Your task to perform on an android device: see creations saved in the google photos Image 0: 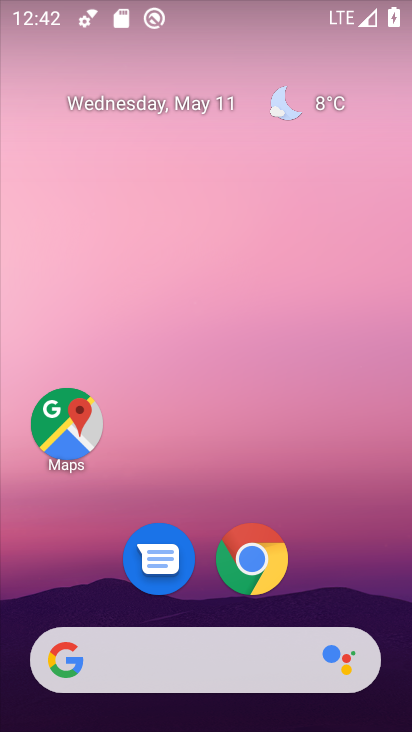
Step 0: drag from (227, 723) to (241, 104)
Your task to perform on an android device: see creations saved in the google photos Image 1: 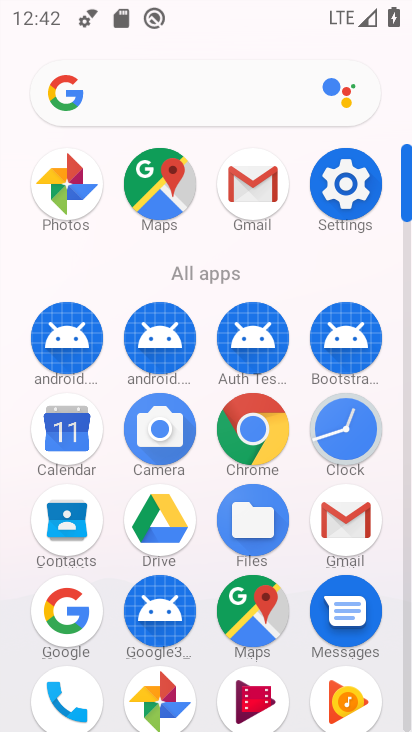
Step 1: click (63, 189)
Your task to perform on an android device: see creations saved in the google photos Image 2: 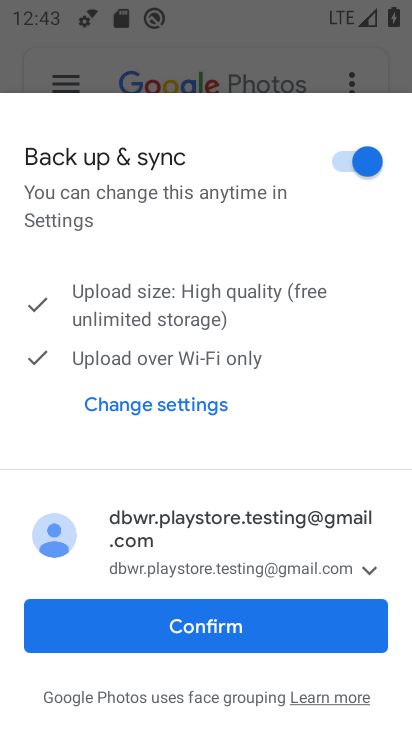
Step 2: click (207, 626)
Your task to perform on an android device: see creations saved in the google photos Image 3: 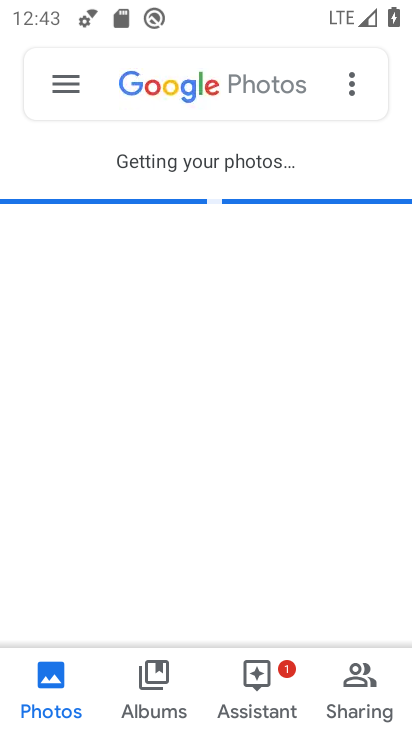
Step 3: click (235, 82)
Your task to perform on an android device: see creations saved in the google photos Image 4: 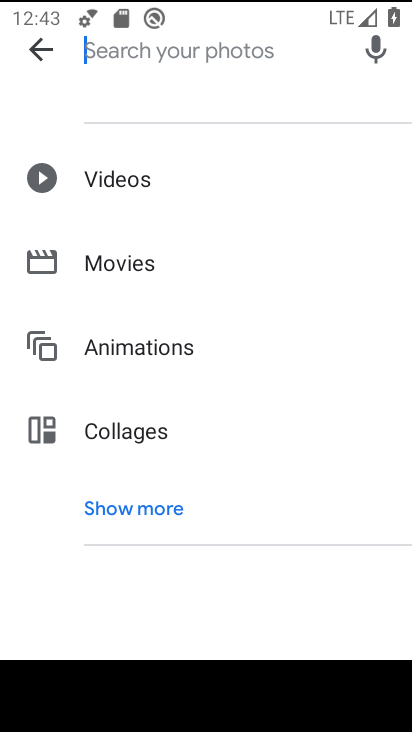
Step 4: click (145, 507)
Your task to perform on an android device: see creations saved in the google photos Image 5: 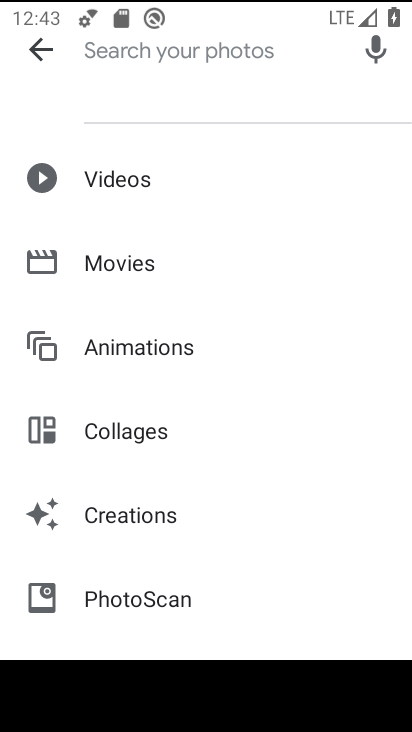
Step 5: click (141, 513)
Your task to perform on an android device: see creations saved in the google photos Image 6: 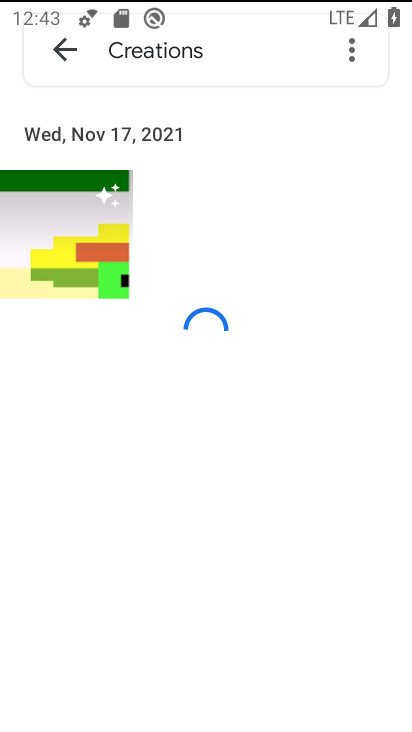
Step 6: task complete